Your task to perform on an android device: Search for logitech g910 on bestbuy.com, select the first entry, and add it to the cart. Image 0: 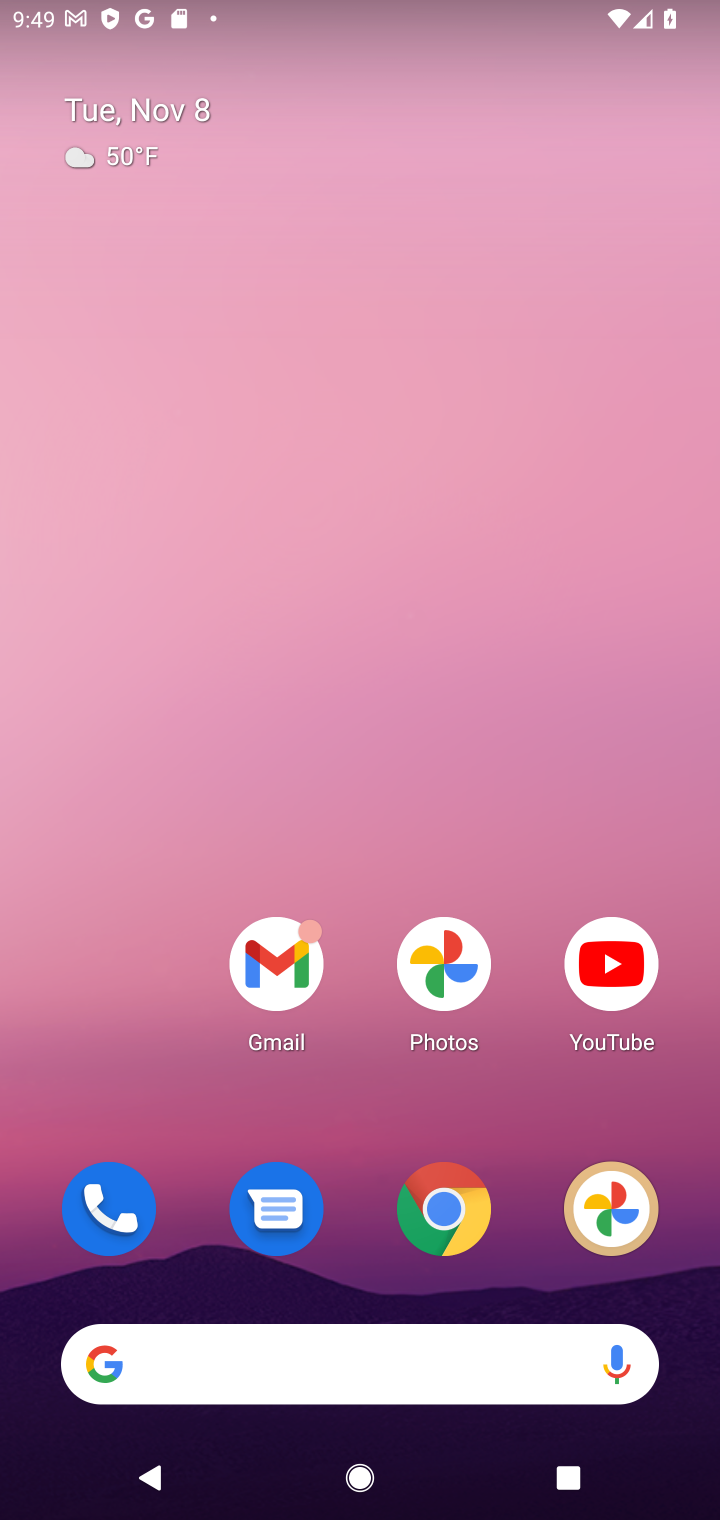
Step 0: click (438, 1212)
Your task to perform on an android device: Search for logitech g910 on bestbuy.com, select the first entry, and add it to the cart. Image 1: 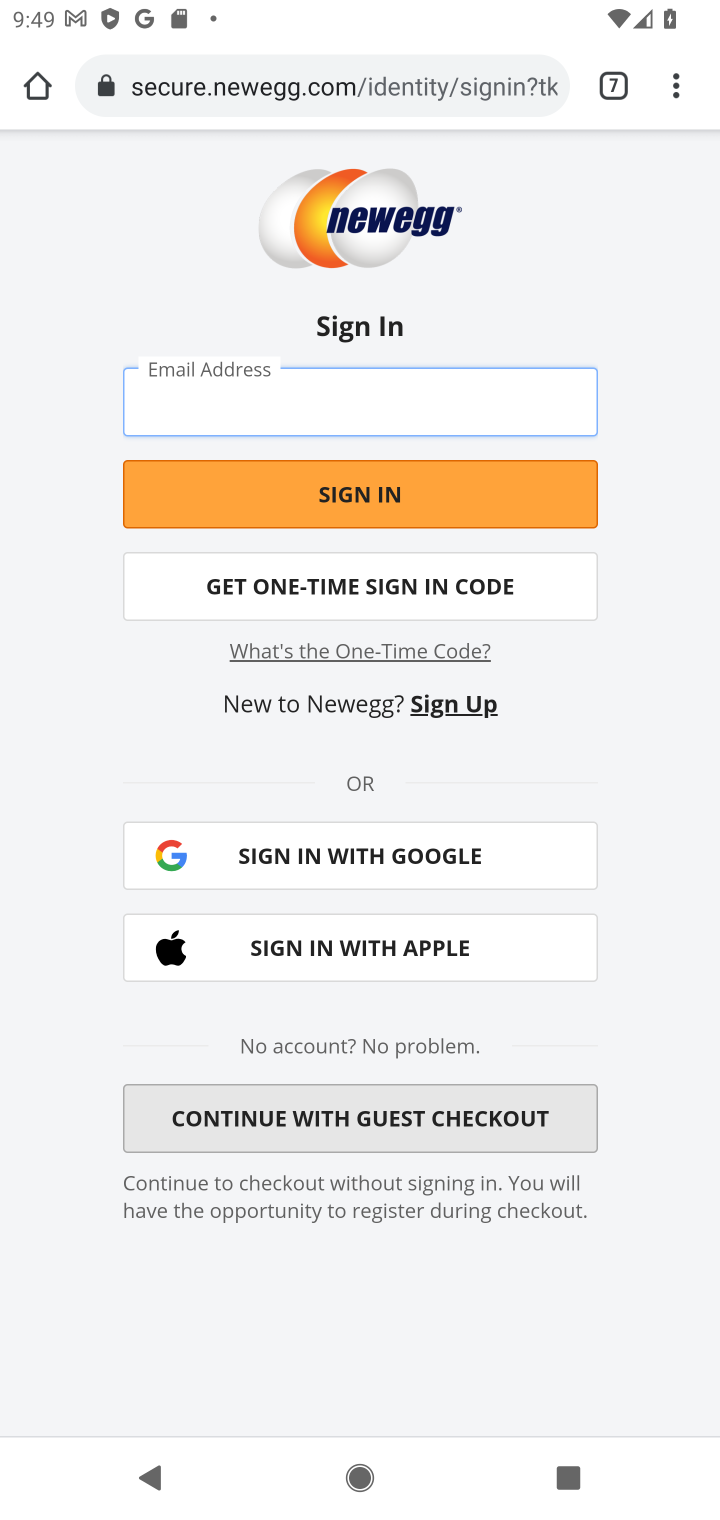
Step 1: click (610, 87)
Your task to perform on an android device: Search for logitech g910 on bestbuy.com, select the first entry, and add it to the cart. Image 2: 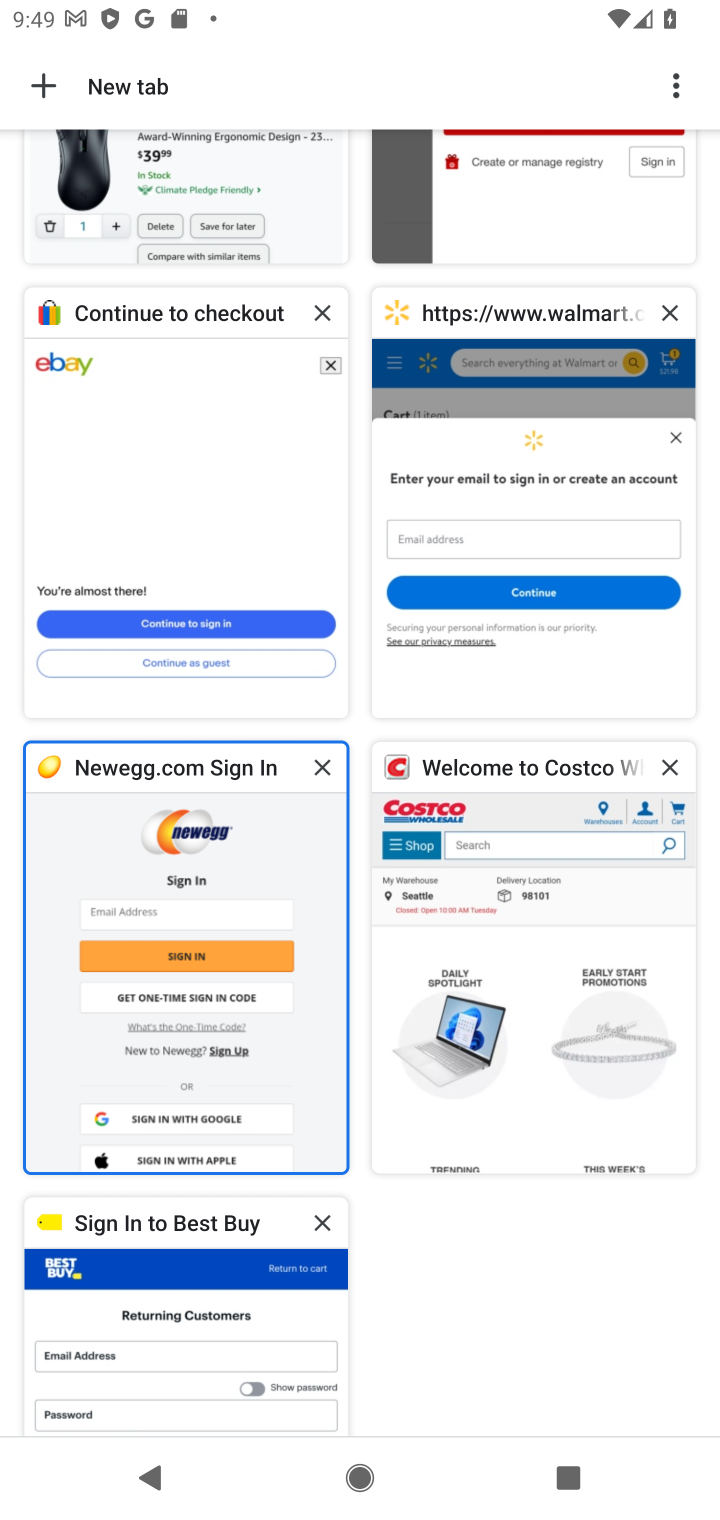
Step 2: click (193, 868)
Your task to perform on an android device: Search for logitech g910 on bestbuy.com, select the first entry, and add it to the cart. Image 3: 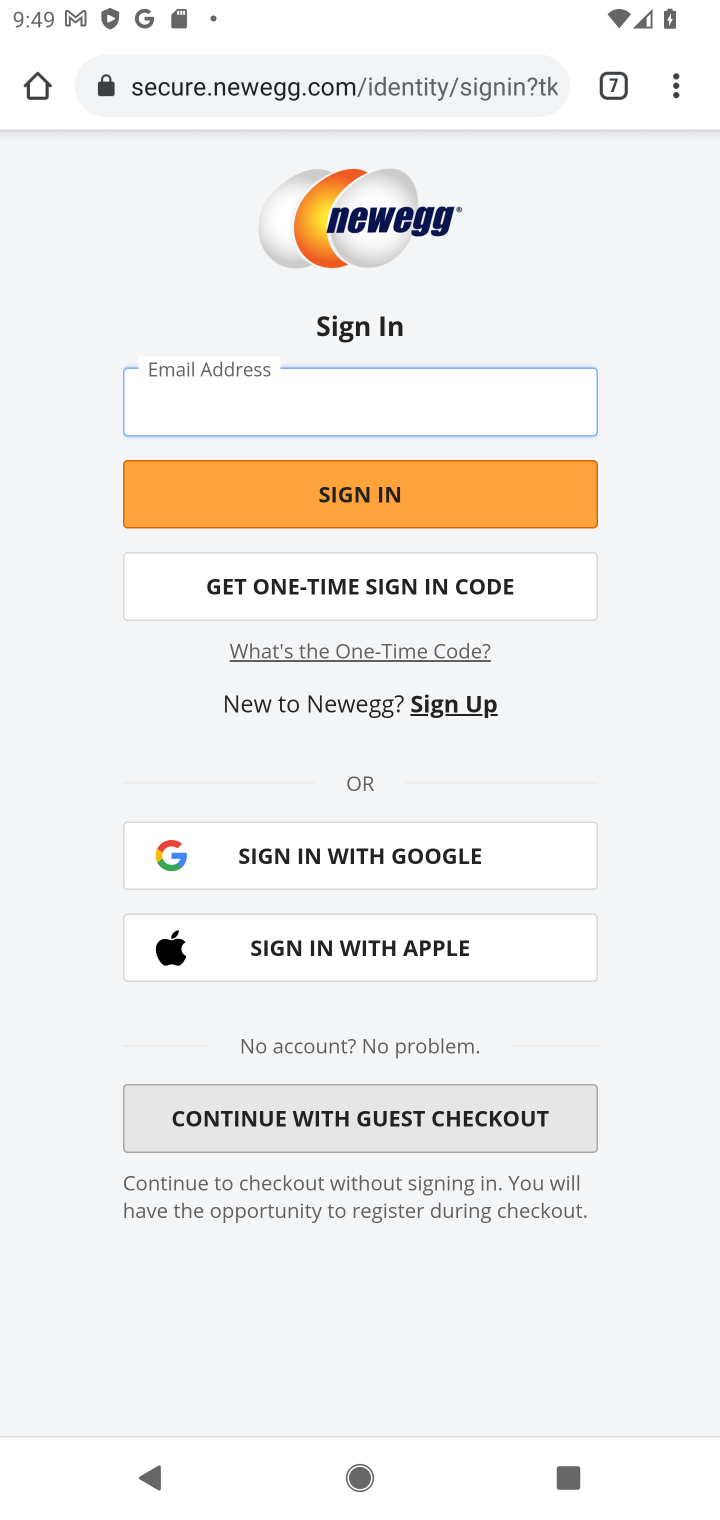
Step 3: press back button
Your task to perform on an android device: Search for logitech g910 on bestbuy.com, select the first entry, and add it to the cart. Image 4: 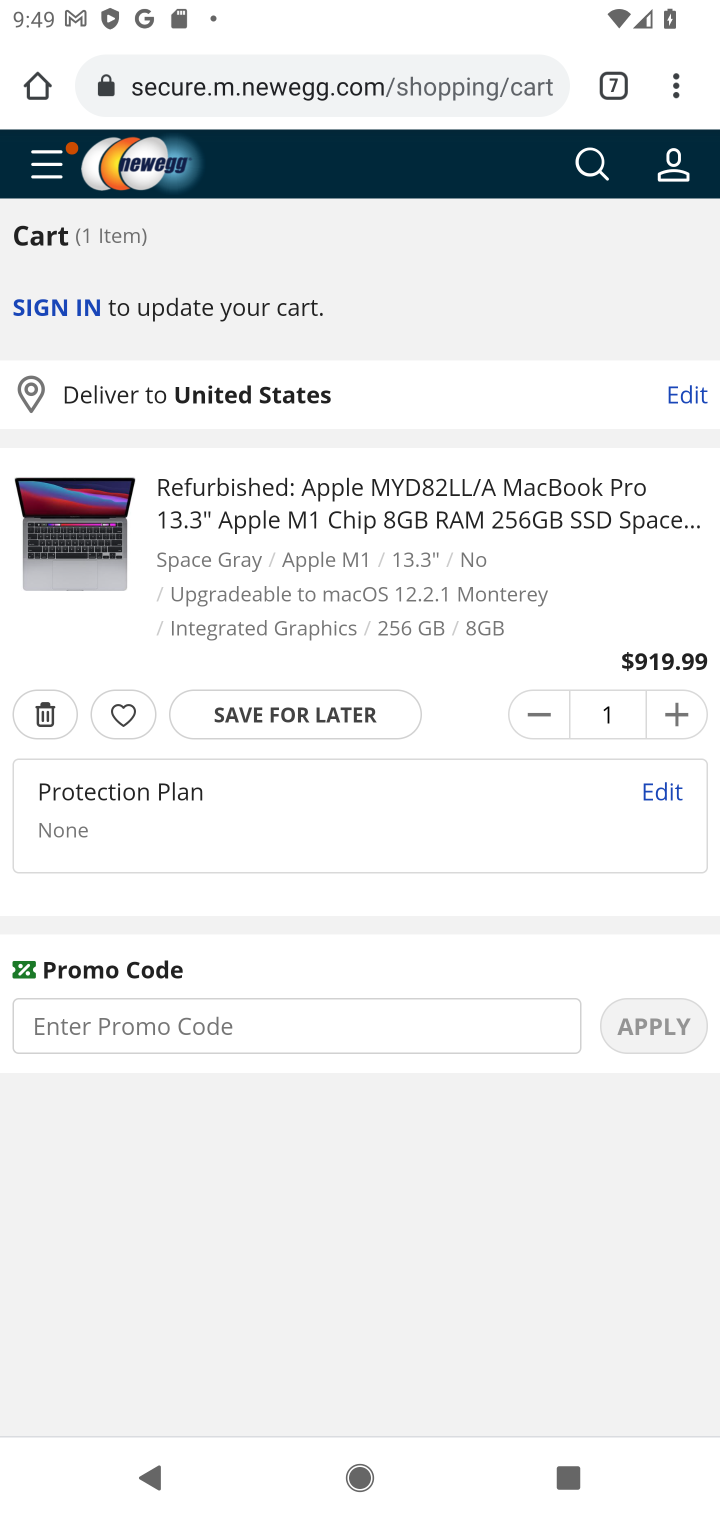
Step 4: click (614, 81)
Your task to perform on an android device: Search for logitech g910 on bestbuy.com, select the first entry, and add it to the cart. Image 5: 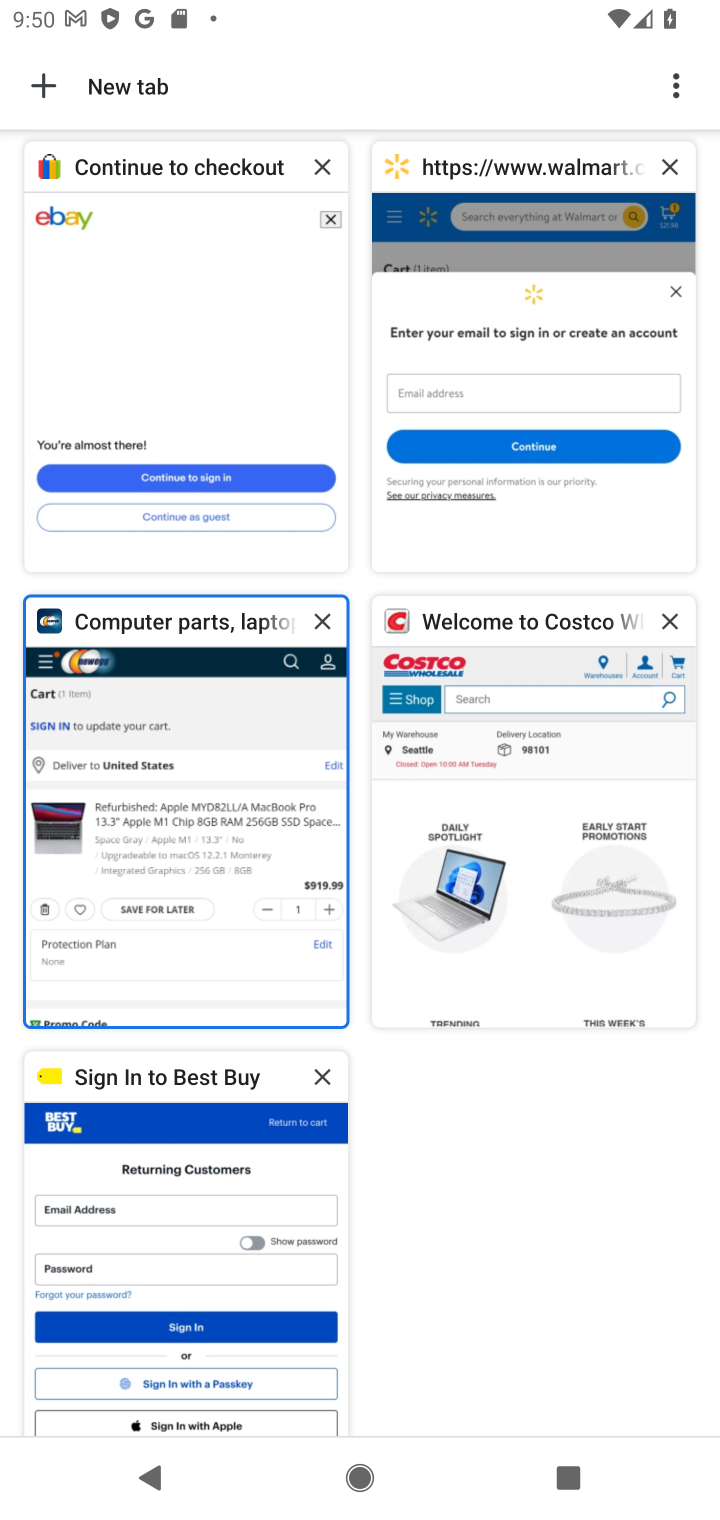
Step 5: click (238, 1308)
Your task to perform on an android device: Search for logitech g910 on bestbuy.com, select the first entry, and add it to the cart. Image 6: 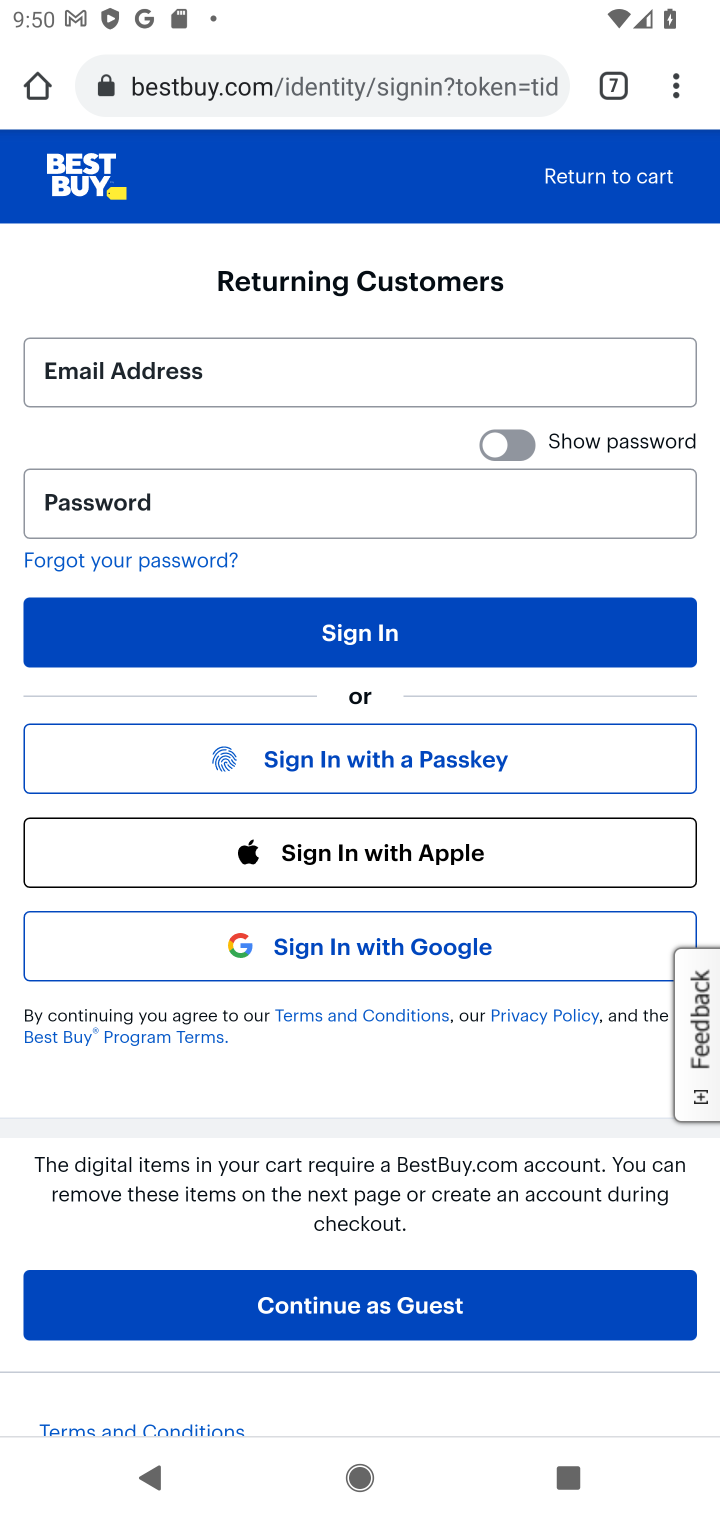
Step 6: click (638, 180)
Your task to perform on an android device: Search for logitech g910 on bestbuy.com, select the first entry, and add it to the cart. Image 7: 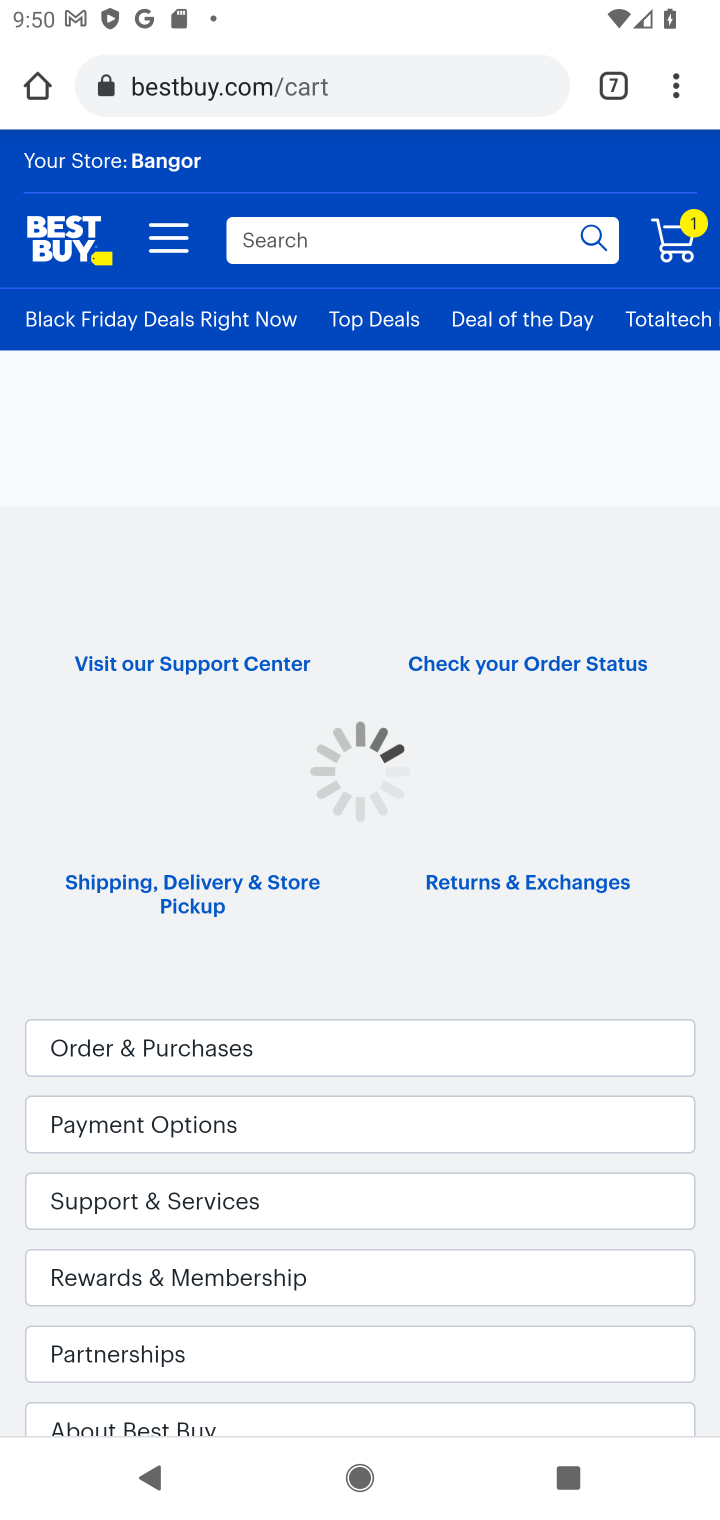
Step 7: click (290, 233)
Your task to perform on an android device: Search for logitech g910 on bestbuy.com, select the first entry, and add it to the cart. Image 8: 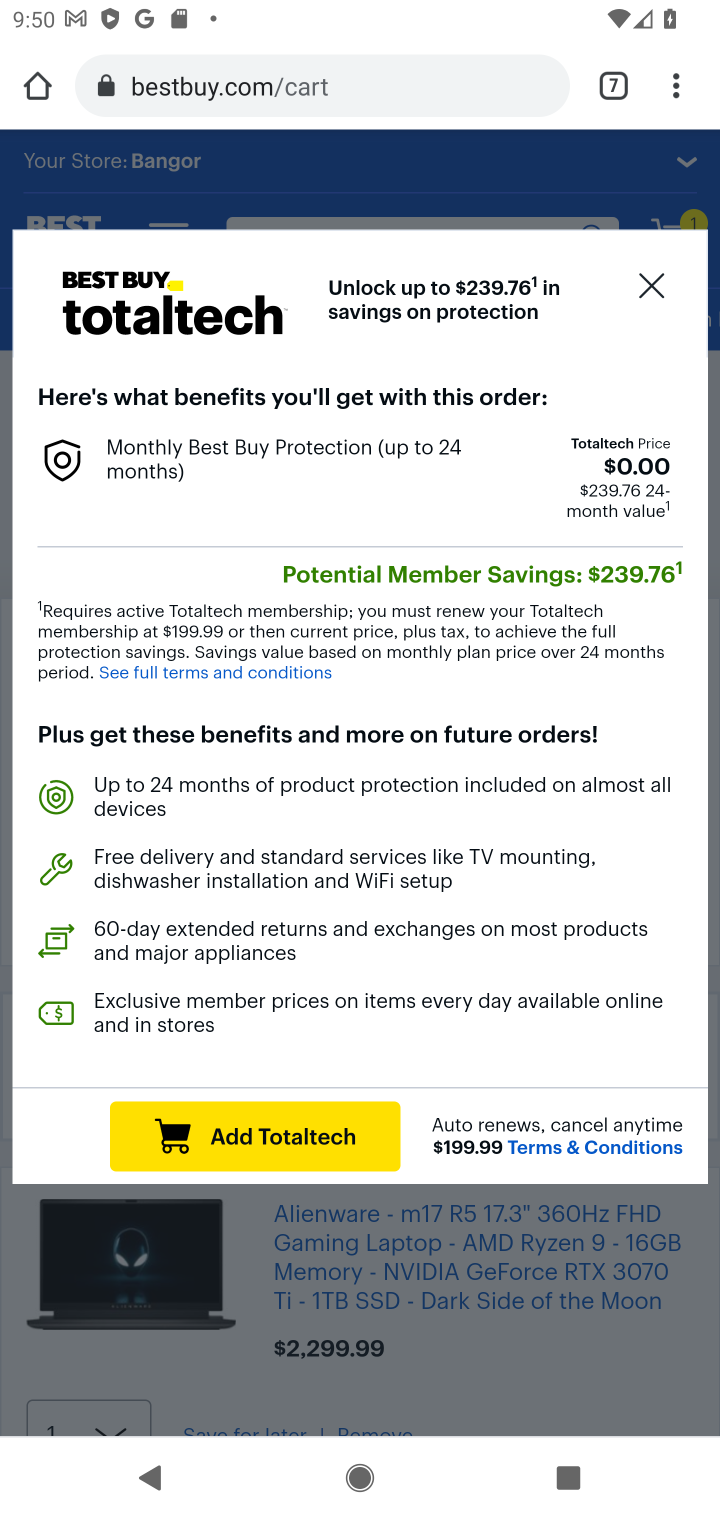
Step 8: type "logitech g910"
Your task to perform on an android device: Search for logitech g910 on bestbuy.com, select the first entry, and add it to the cart. Image 9: 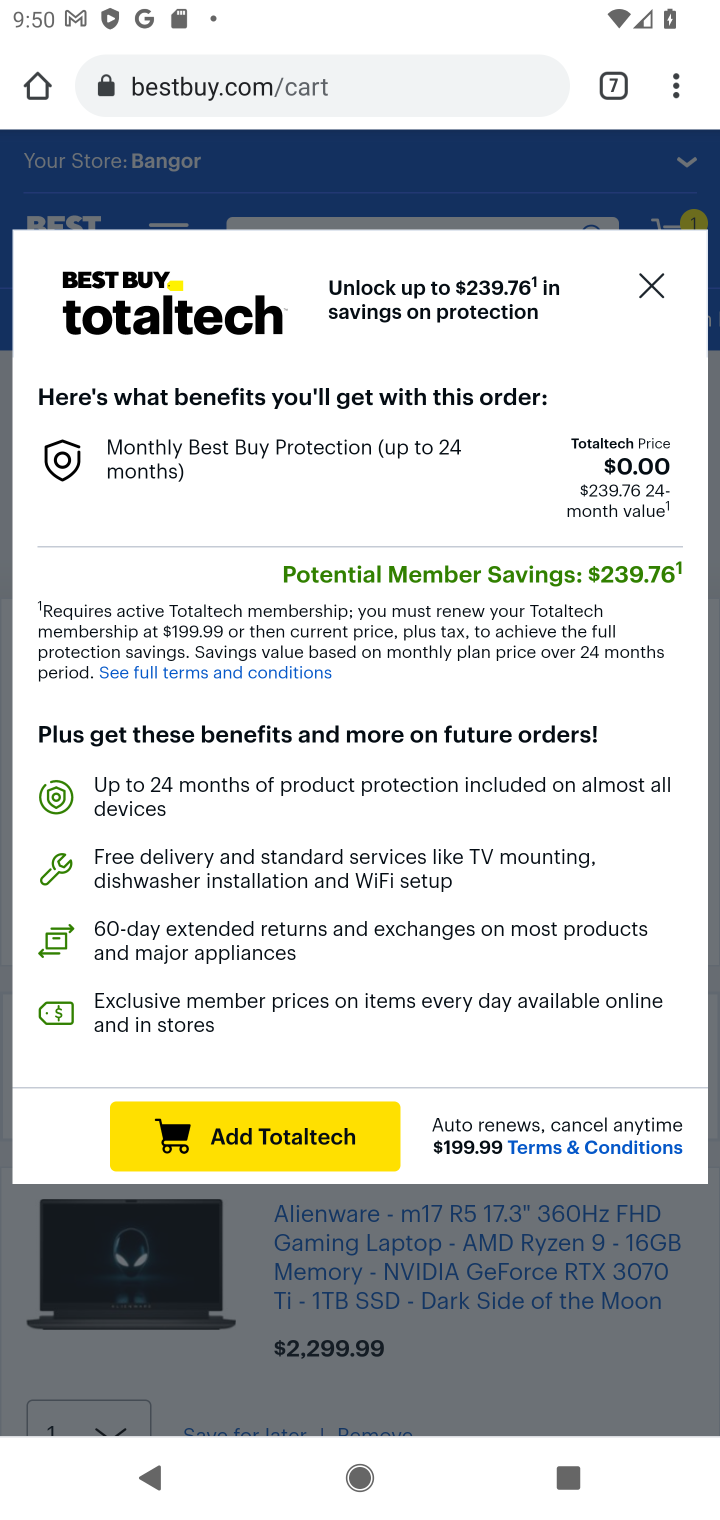
Step 9: click (649, 280)
Your task to perform on an android device: Search for logitech g910 on bestbuy.com, select the first entry, and add it to the cart. Image 10: 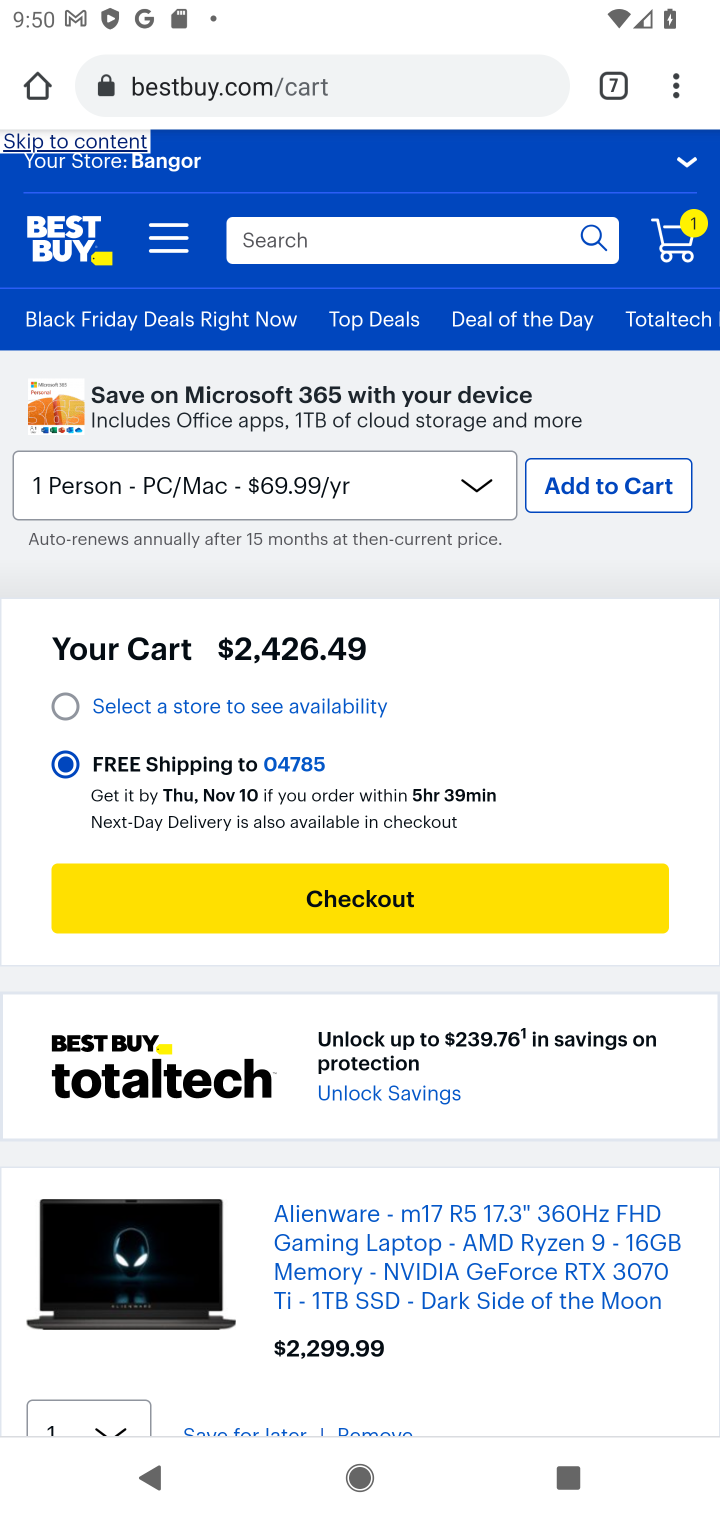
Step 10: click (407, 241)
Your task to perform on an android device: Search for logitech g910 on bestbuy.com, select the first entry, and add it to the cart. Image 11: 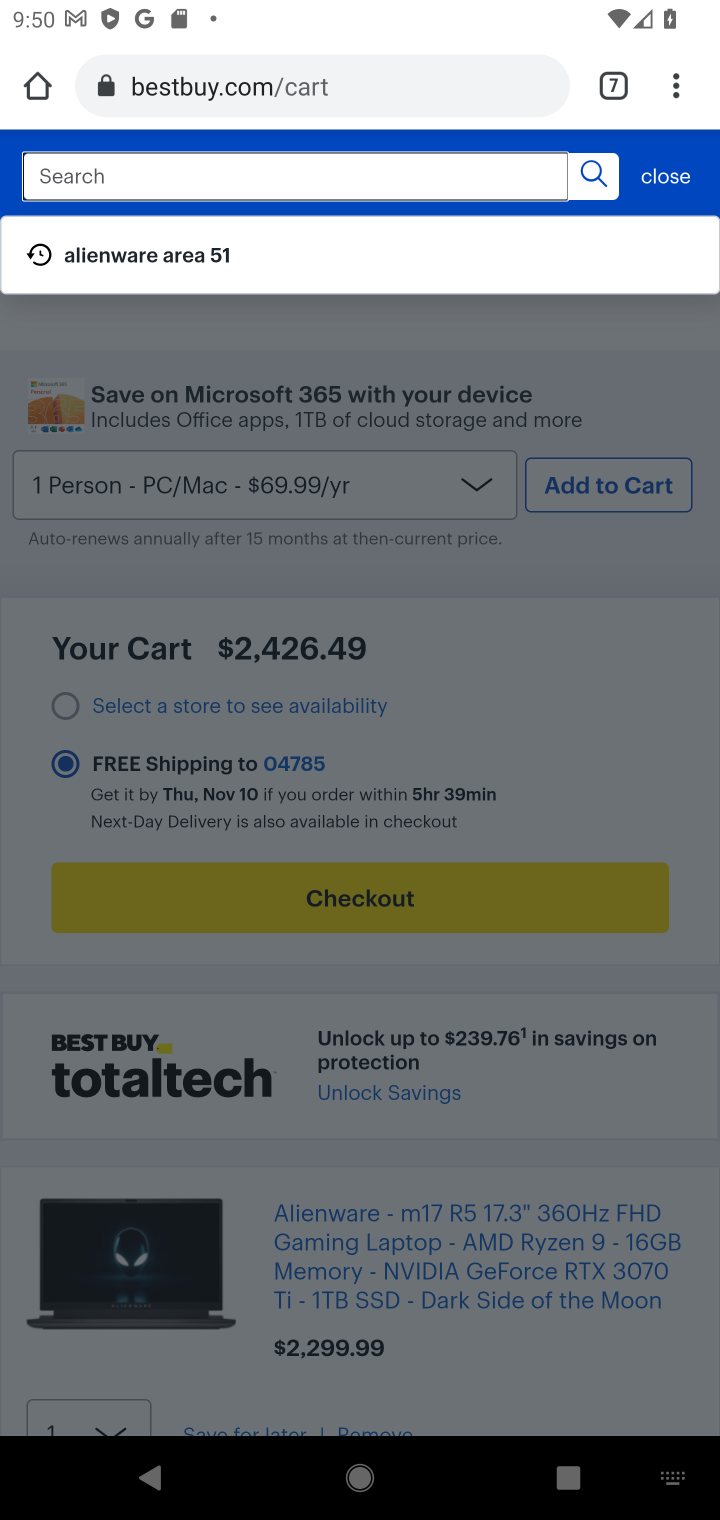
Step 11: type "logitech g910"
Your task to perform on an android device: Search for logitech g910 on bestbuy.com, select the first entry, and add it to the cart. Image 12: 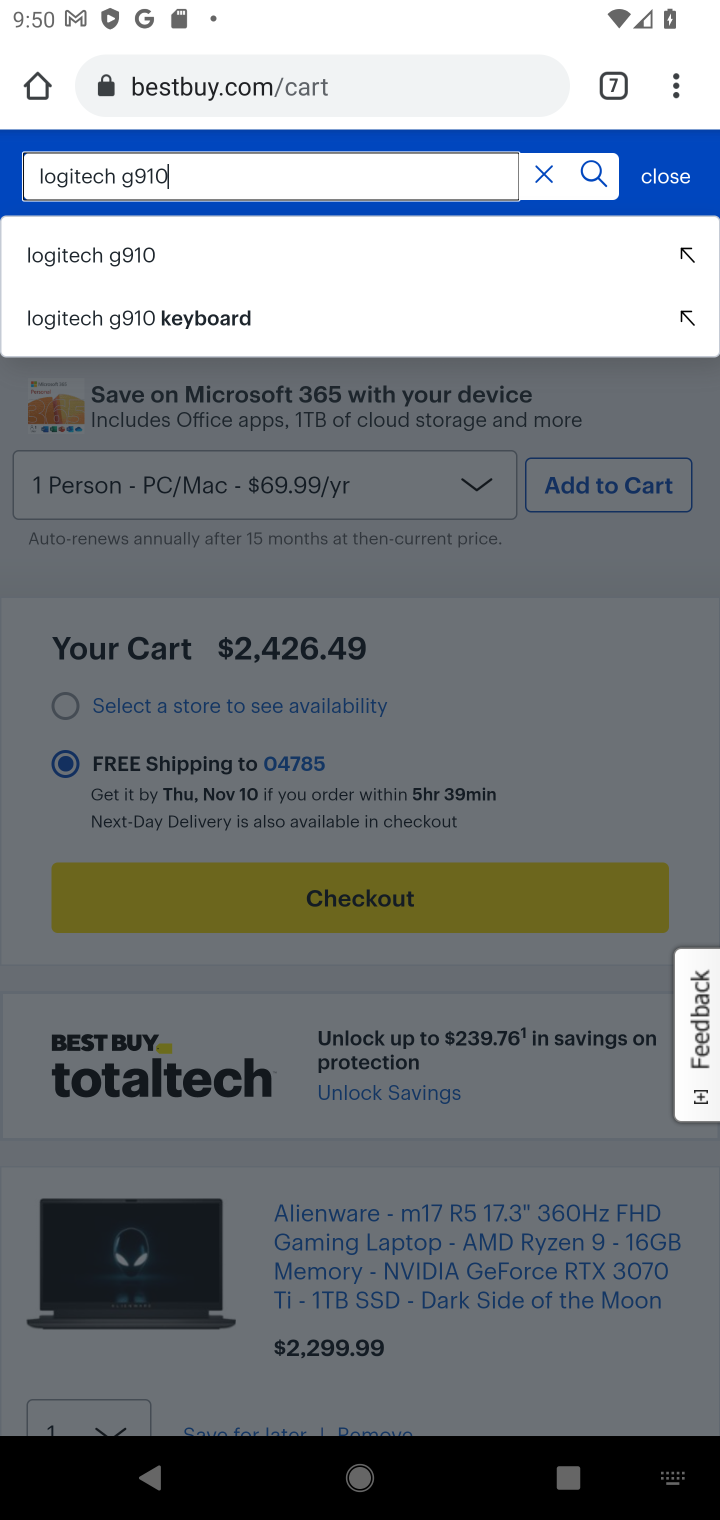
Step 12: click (115, 257)
Your task to perform on an android device: Search for logitech g910 on bestbuy.com, select the first entry, and add it to the cart. Image 13: 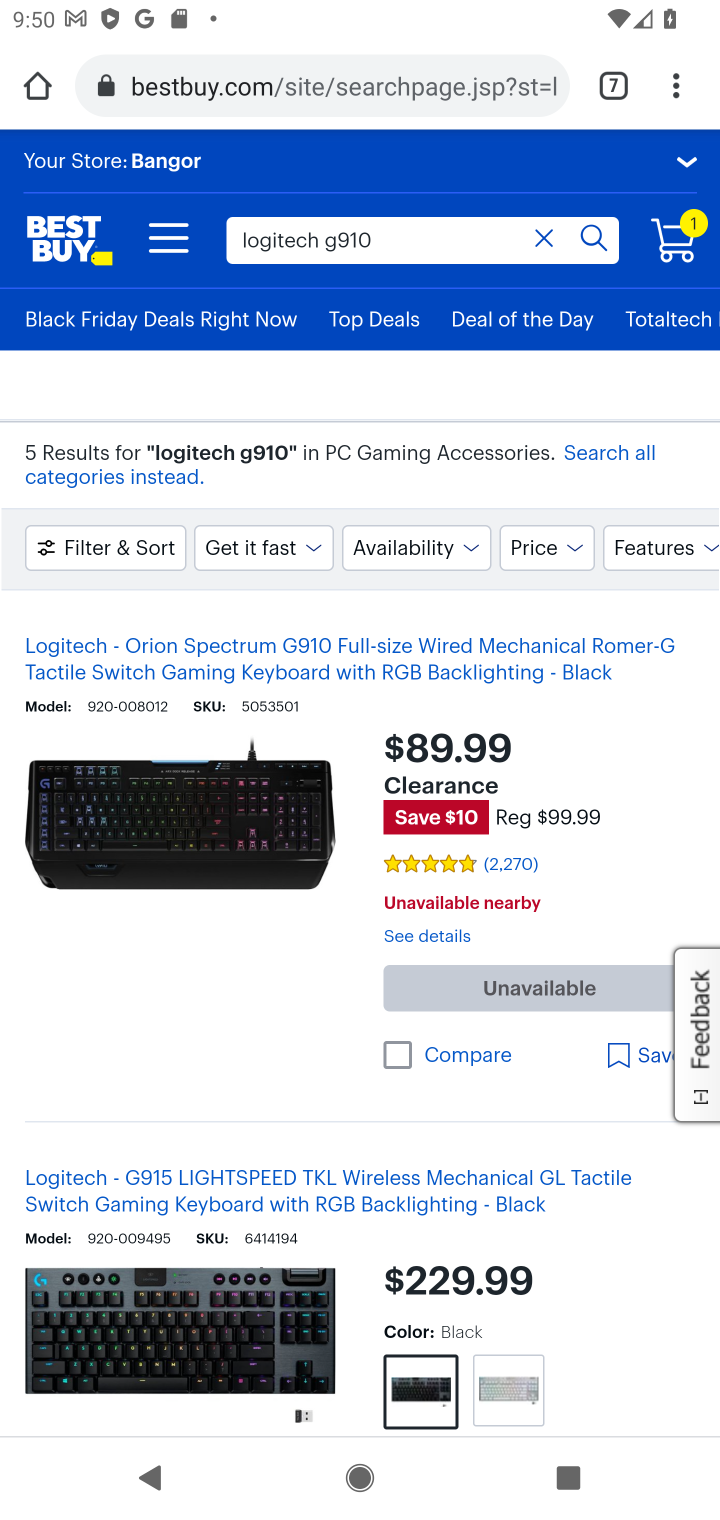
Step 13: drag from (532, 1146) to (606, 712)
Your task to perform on an android device: Search for logitech g910 on bestbuy.com, select the first entry, and add it to the cart. Image 14: 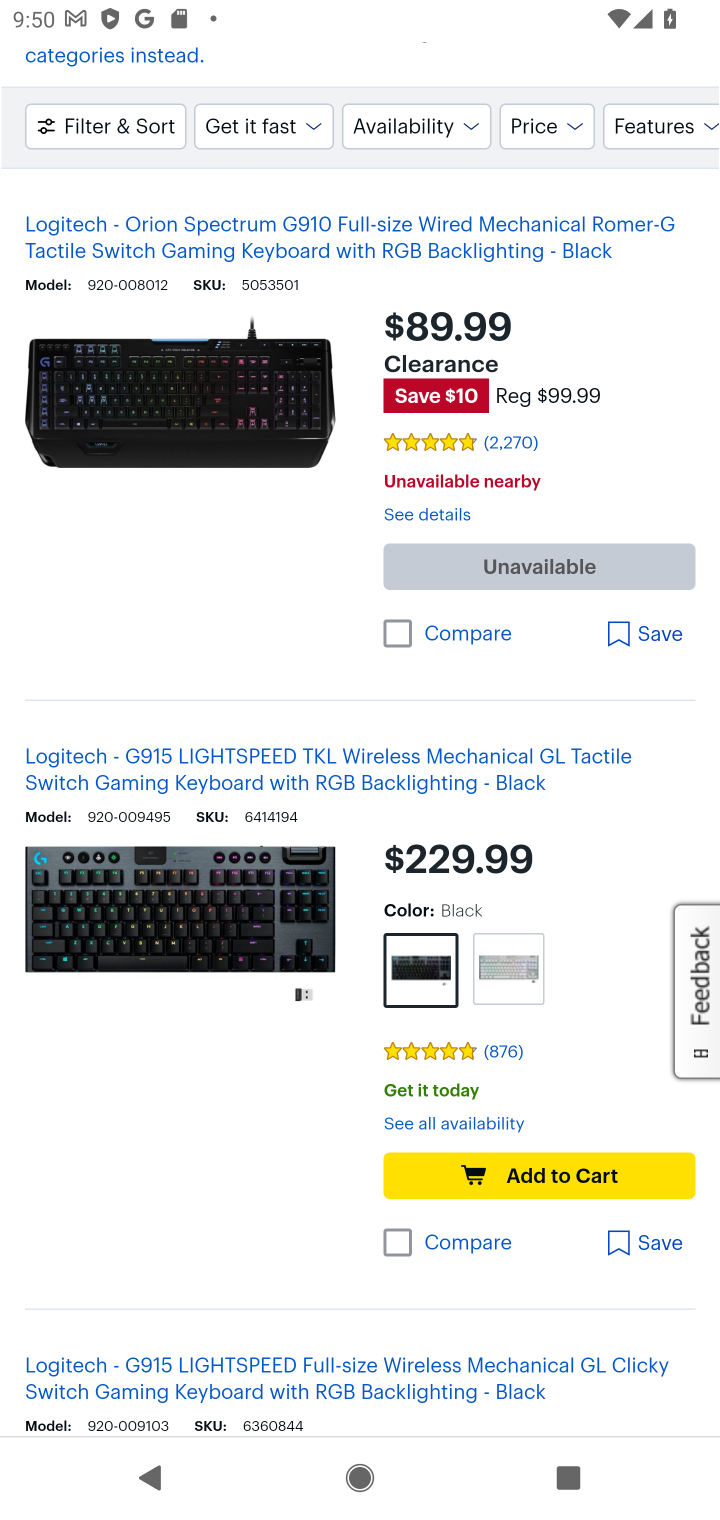
Step 14: click (559, 1165)
Your task to perform on an android device: Search for logitech g910 on bestbuy.com, select the first entry, and add it to the cart. Image 15: 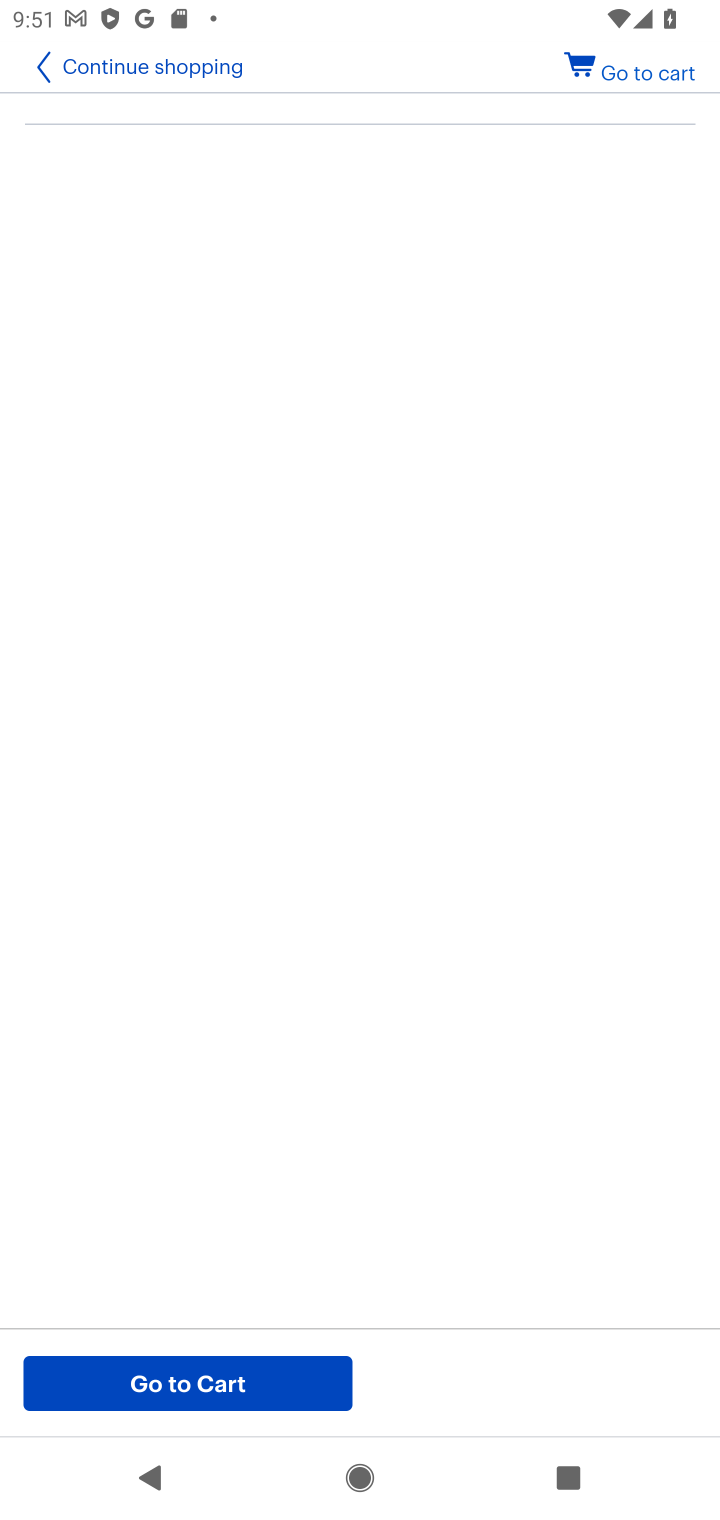
Step 15: task complete